Your task to perform on an android device: Open my contact list Image 0: 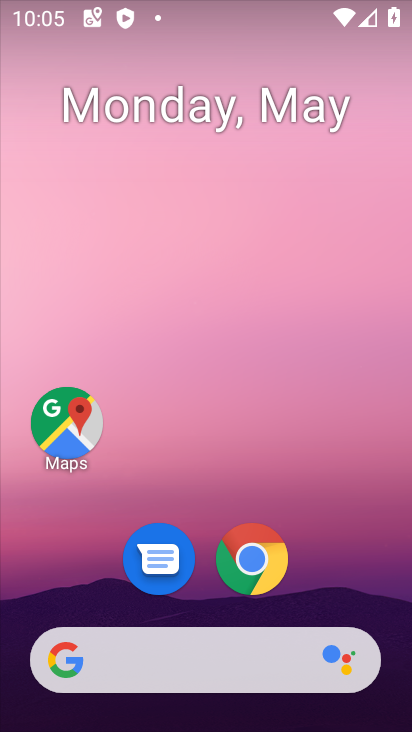
Step 0: drag from (305, 550) to (213, 123)
Your task to perform on an android device: Open my contact list Image 1: 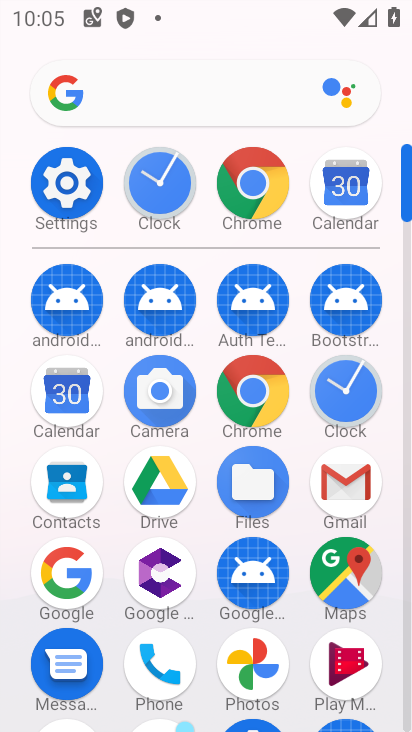
Step 1: click (64, 502)
Your task to perform on an android device: Open my contact list Image 2: 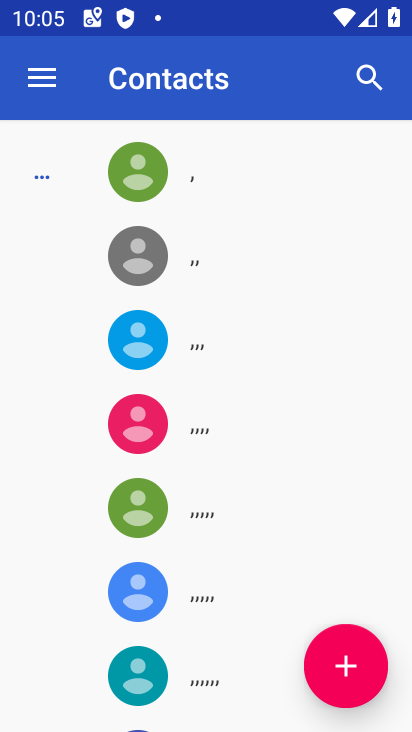
Step 2: task complete